Your task to perform on an android device: What's on my calendar today? Image 0: 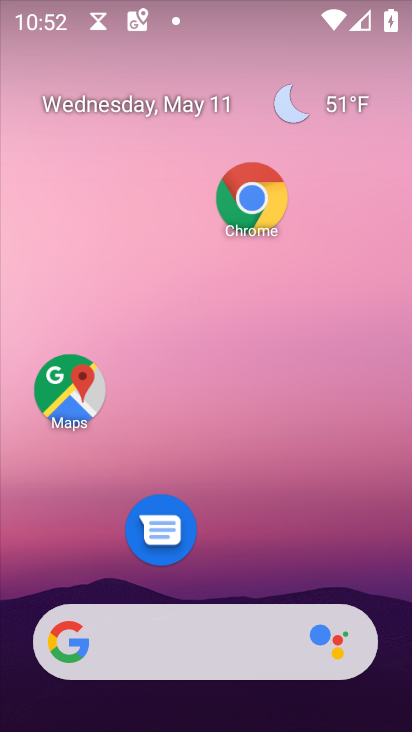
Step 0: drag from (302, 551) to (313, 309)
Your task to perform on an android device: What's on my calendar today? Image 1: 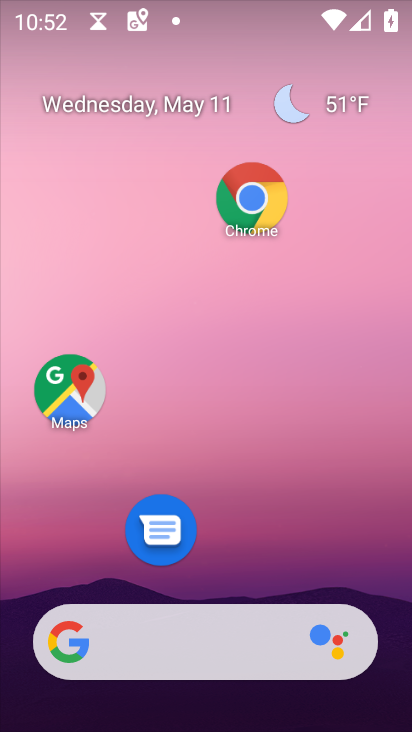
Step 1: drag from (261, 543) to (249, 151)
Your task to perform on an android device: What's on my calendar today? Image 2: 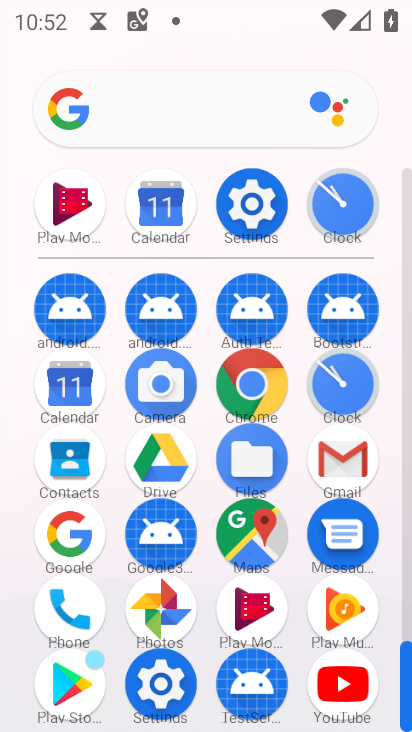
Step 2: click (85, 386)
Your task to perform on an android device: What's on my calendar today? Image 3: 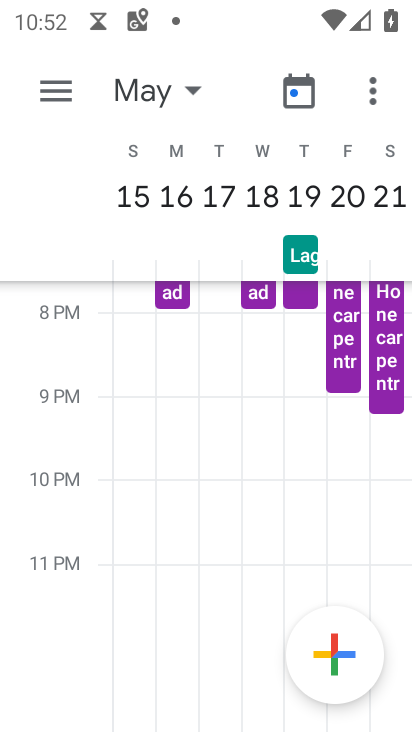
Step 3: click (55, 104)
Your task to perform on an android device: What's on my calendar today? Image 4: 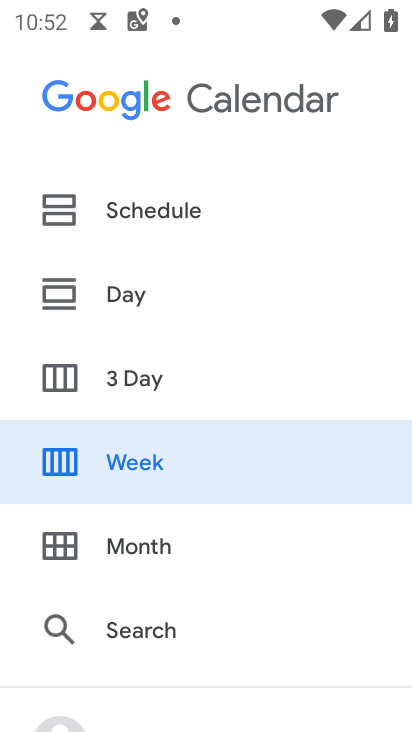
Step 4: click (135, 206)
Your task to perform on an android device: What's on my calendar today? Image 5: 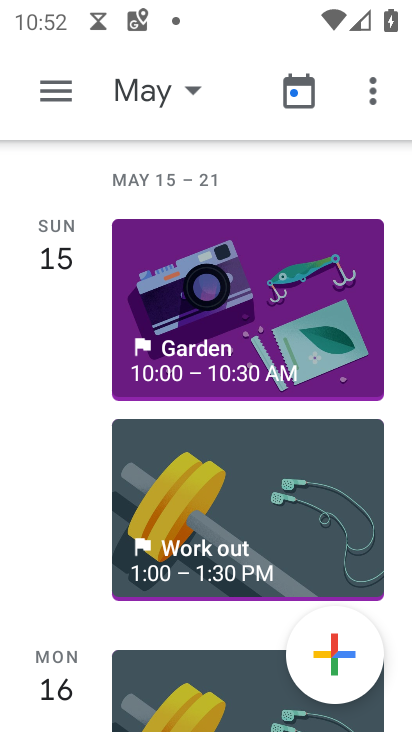
Step 5: click (136, 105)
Your task to perform on an android device: What's on my calendar today? Image 6: 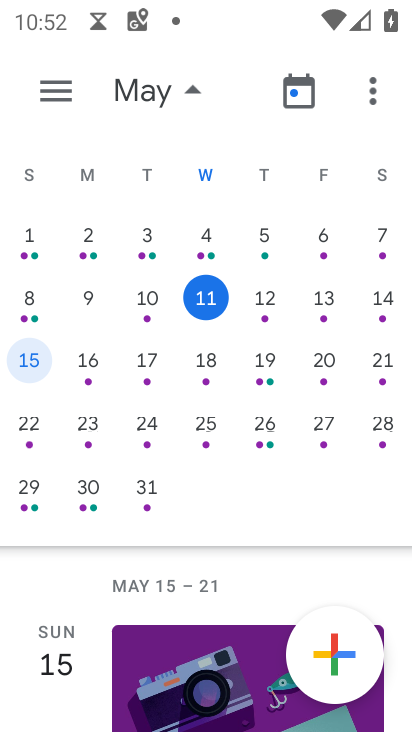
Step 6: click (195, 304)
Your task to perform on an android device: What's on my calendar today? Image 7: 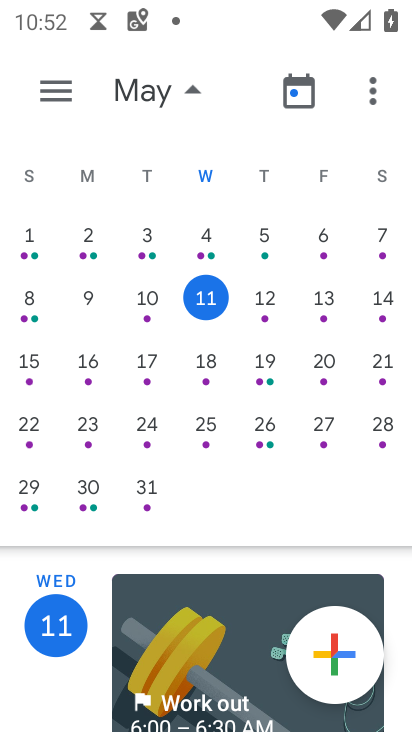
Step 7: task complete